Your task to perform on an android device: What is the news today? Image 0: 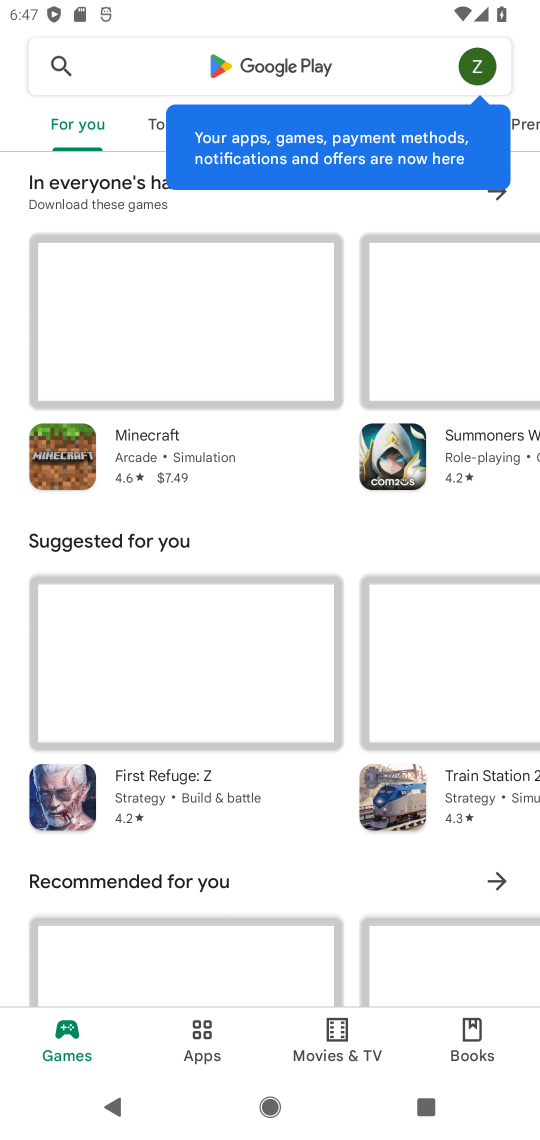
Step 0: press home button
Your task to perform on an android device: What is the news today? Image 1: 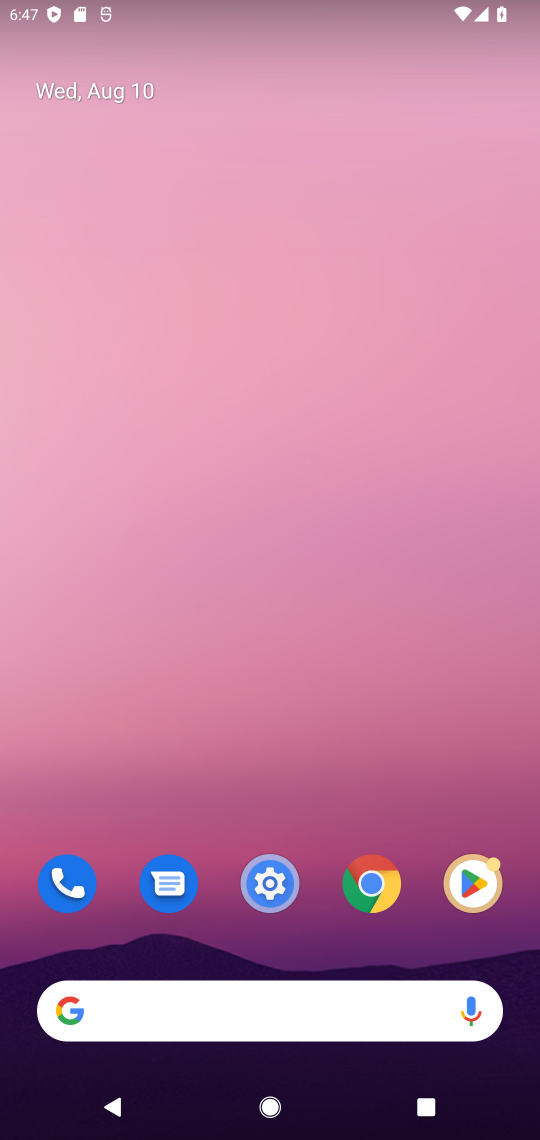
Step 1: click (178, 1016)
Your task to perform on an android device: What is the news today? Image 2: 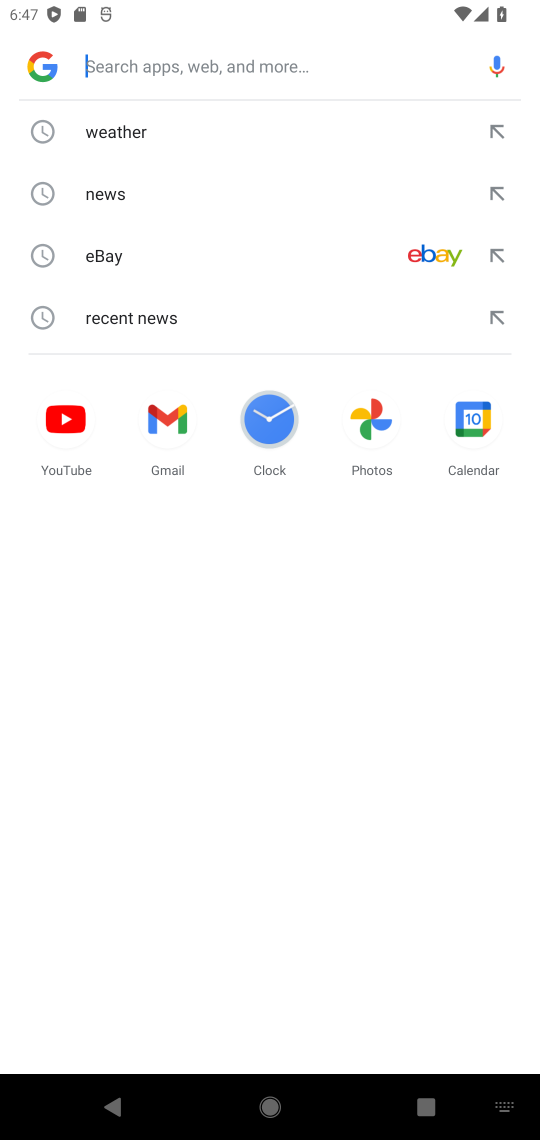
Step 2: click (30, 80)
Your task to perform on an android device: What is the news today? Image 3: 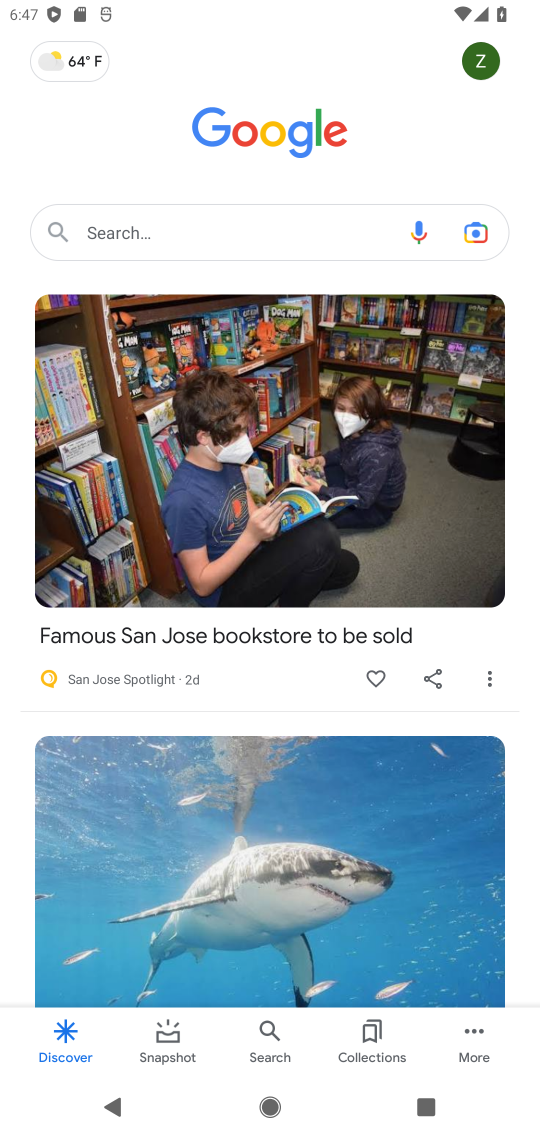
Step 3: task complete